Your task to perform on an android device: turn on showing notifications on the lock screen Image 0: 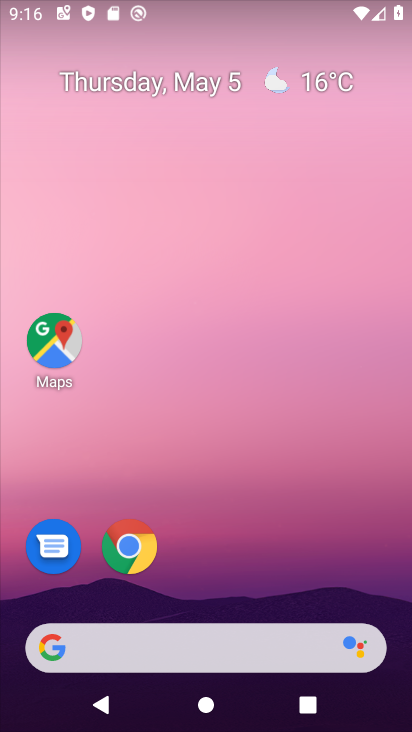
Step 0: drag from (239, 475) to (200, 232)
Your task to perform on an android device: turn on showing notifications on the lock screen Image 1: 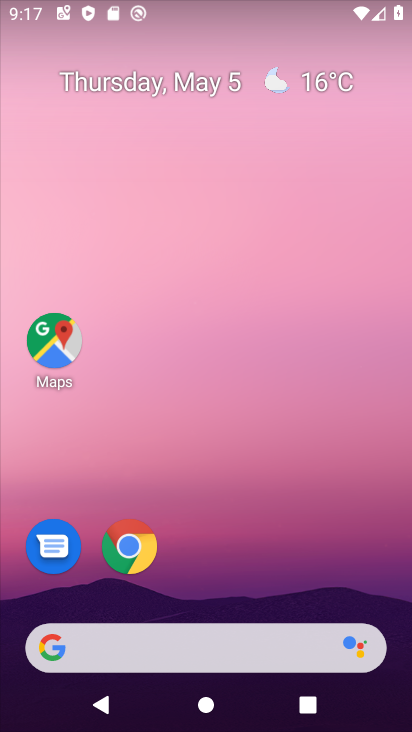
Step 1: drag from (262, 566) to (183, 150)
Your task to perform on an android device: turn on showing notifications on the lock screen Image 2: 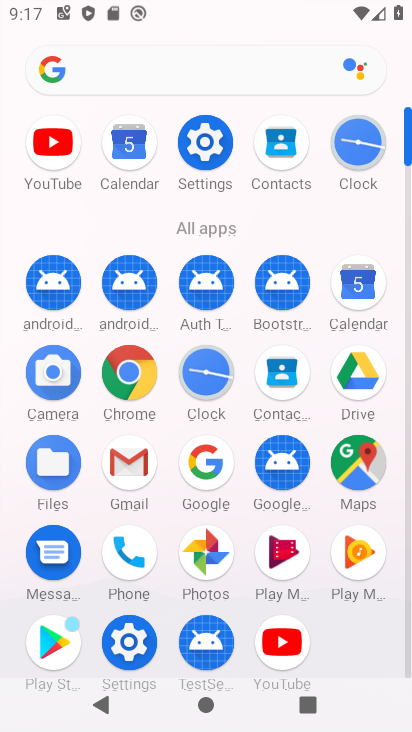
Step 2: click (135, 643)
Your task to perform on an android device: turn on showing notifications on the lock screen Image 3: 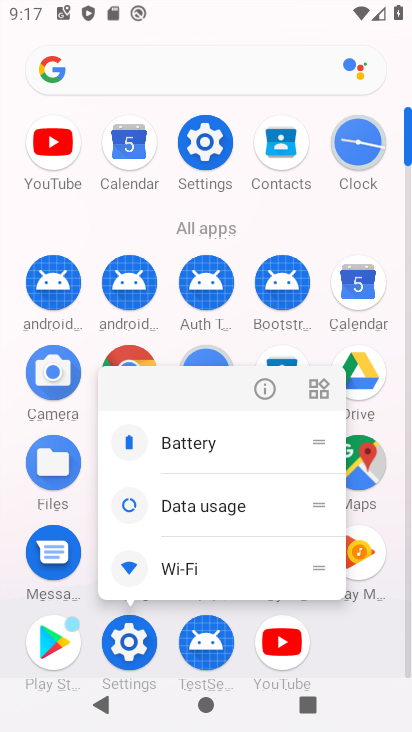
Step 3: click (115, 641)
Your task to perform on an android device: turn on showing notifications on the lock screen Image 4: 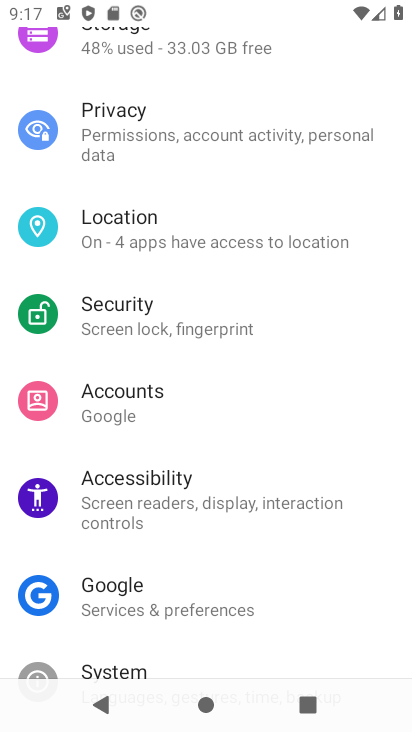
Step 4: drag from (167, 470) to (195, 542)
Your task to perform on an android device: turn on showing notifications on the lock screen Image 5: 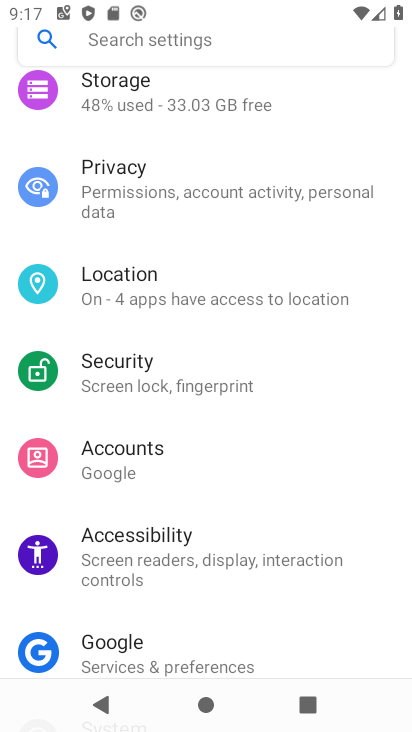
Step 5: drag from (231, 428) to (277, 574)
Your task to perform on an android device: turn on showing notifications on the lock screen Image 6: 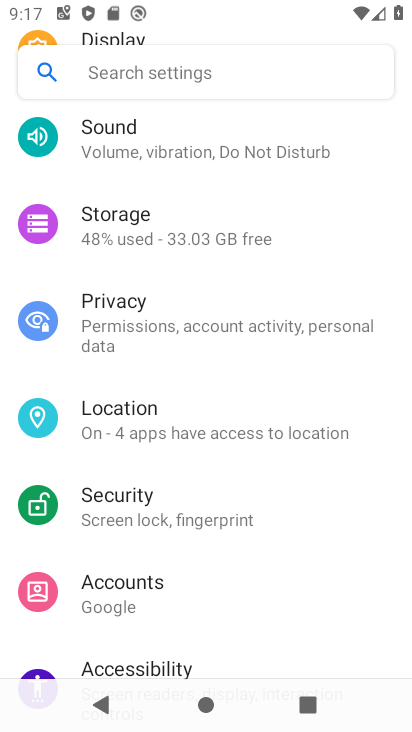
Step 6: drag from (247, 365) to (263, 576)
Your task to perform on an android device: turn on showing notifications on the lock screen Image 7: 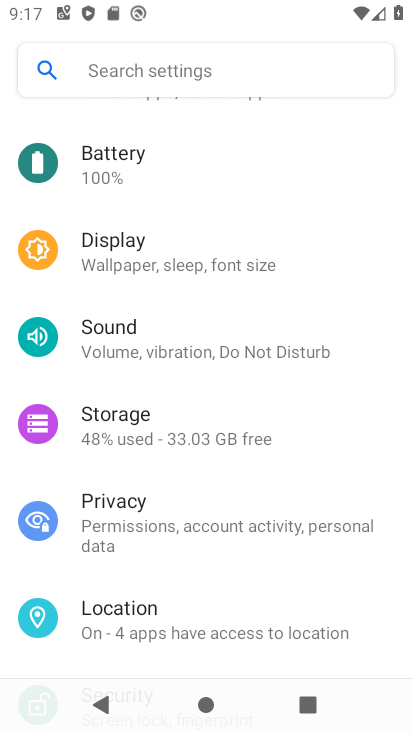
Step 7: drag from (259, 361) to (280, 505)
Your task to perform on an android device: turn on showing notifications on the lock screen Image 8: 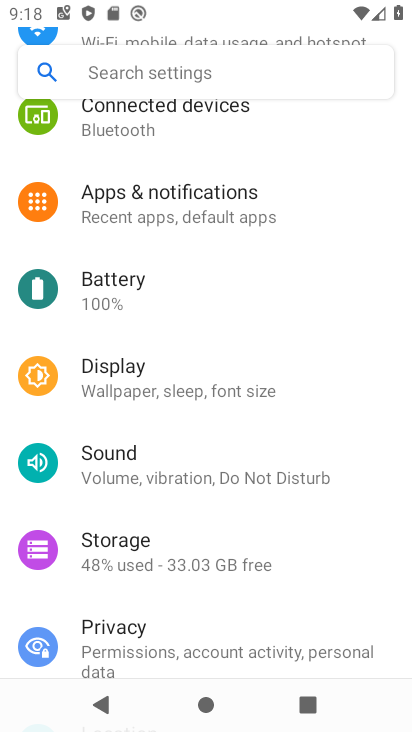
Step 8: drag from (251, 355) to (268, 550)
Your task to perform on an android device: turn on showing notifications on the lock screen Image 9: 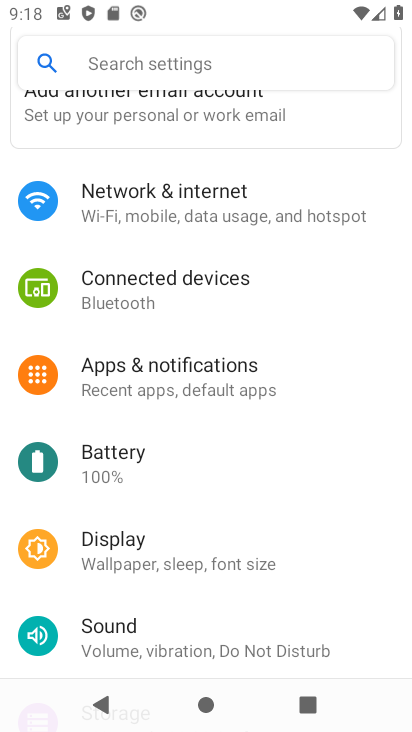
Step 9: drag from (264, 393) to (279, 550)
Your task to perform on an android device: turn on showing notifications on the lock screen Image 10: 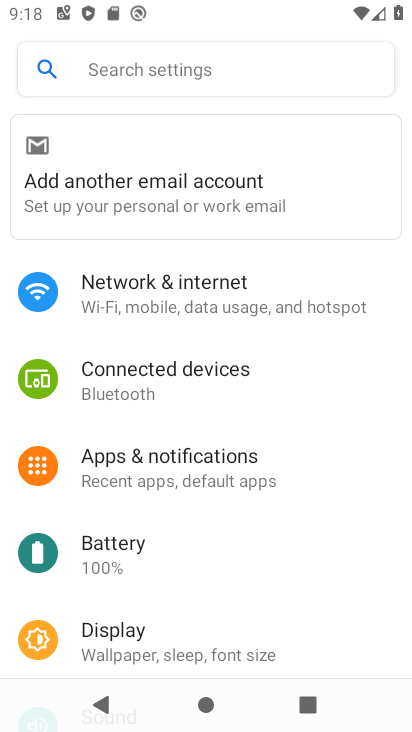
Step 10: click (236, 486)
Your task to perform on an android device: turn on showing notifications on the lock screen Image 11: 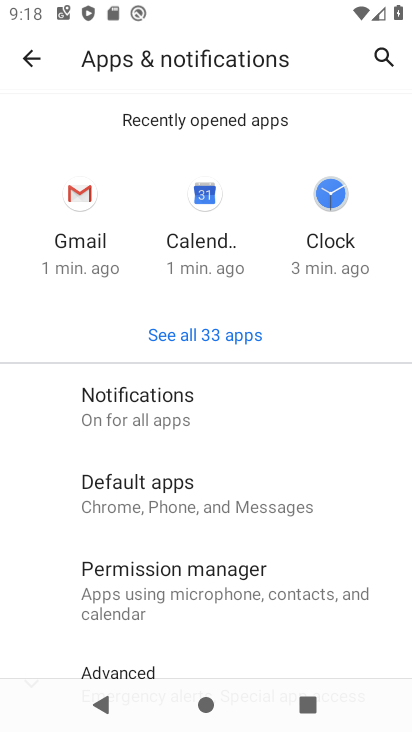
Step 11: click (176, 416)
Your task to perform on an android device: turn on showing notifications on the lock screen Image 12: 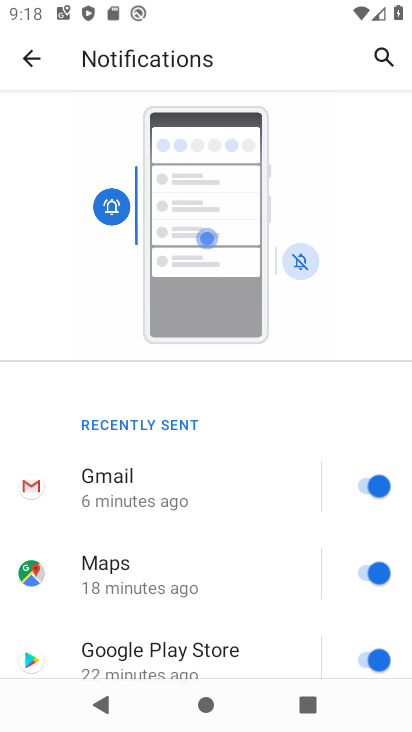
Step 12: drag from (179, 577) to (187, 372)
Your task to perform on an android device: turn on showing notifications on the lock screen Image 13: 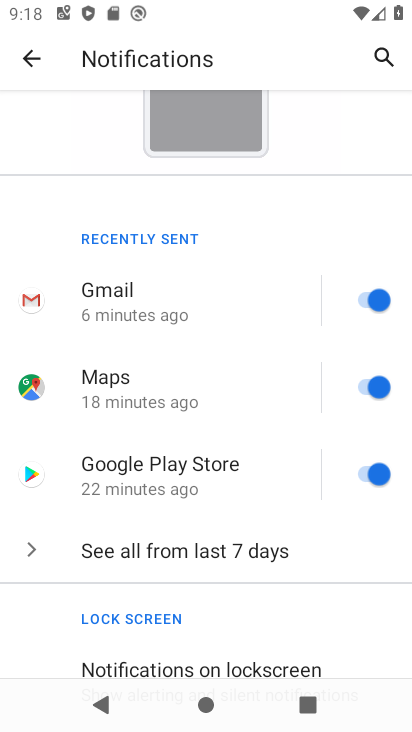
Step 13: drag from (171, 590) to (188, 368)
Your task to perform on an android device: turn on showing notifications on the lock screen Image 14: 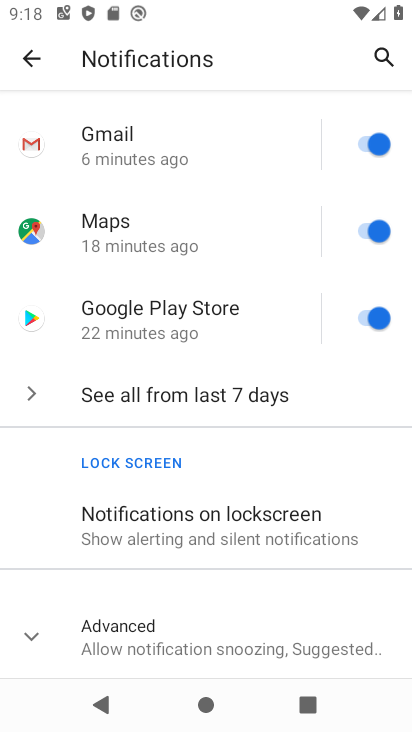
Step 14: drag from (195, 574) to (202, 454)
Your task to perform on an android device: turn on showing notifications on the lock screen Image 15: 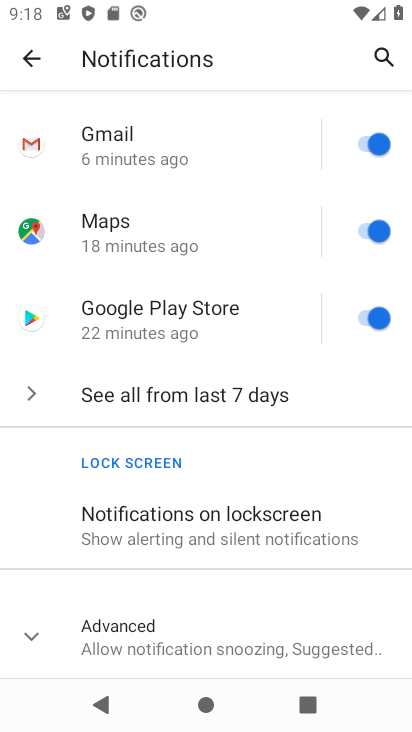
Step 15: click (200, 504)
Your task to perform on an android device: turn on showing notifications on the lock screen Image 16: 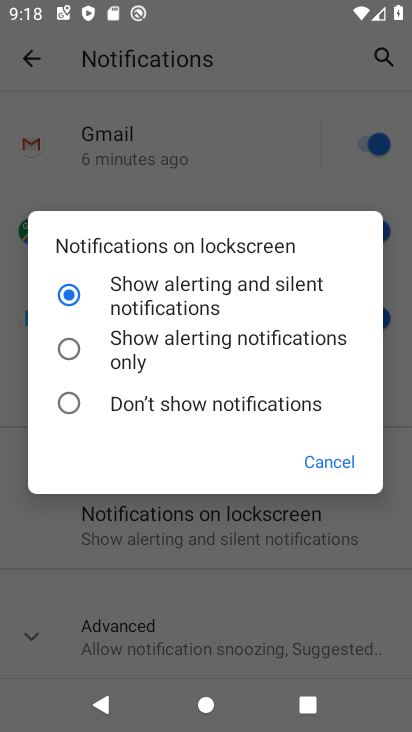
Step 16: click (211, 278)
Your task to perform on an android device: turn on showing notifications on the lock screen Image 17: 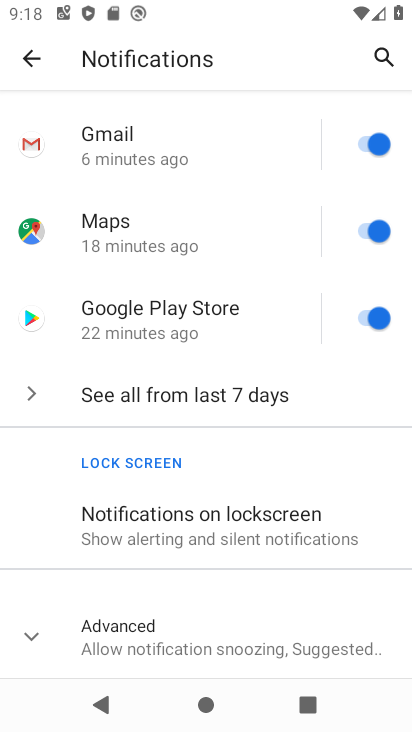
Step 17: task complete